Your task to perform on an android device: turn on showing notifications on the lock screen Image 0: 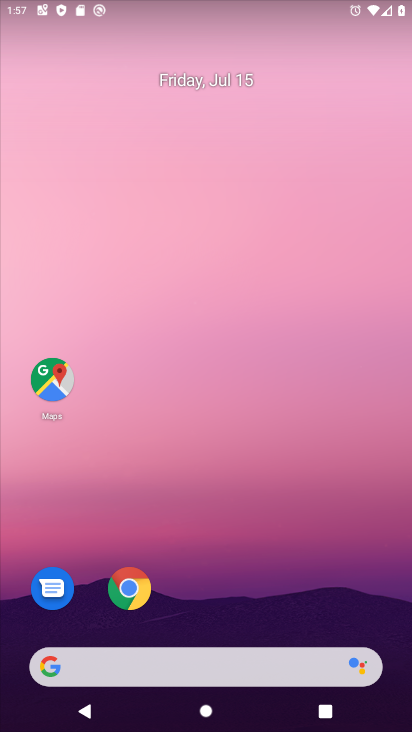
Step 0: drag from (197, 672) to (268, 206)
Your task to perform on an android device: turn on showing notifications on the lock screen Image 1: 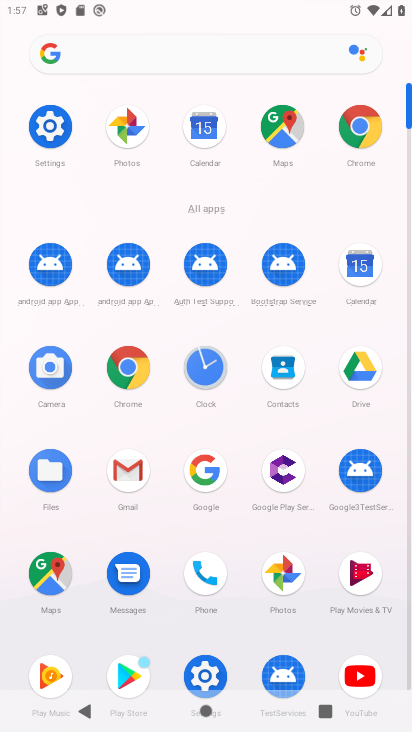
Step 1: click (204, 677)
Your task to perform on an android device: turn on showing notifications on the lock screen Image 2: 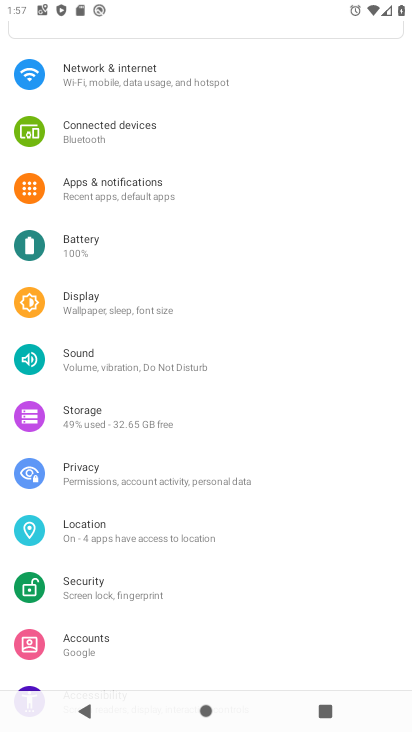
Step 2: click (125, 196)
Your task to perform on an android device: turn on showing notifications on the lock screen Image 3: 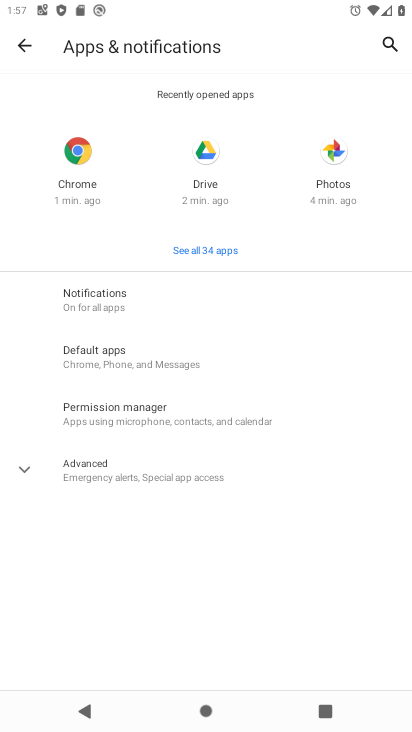
Step 3: click (91, 301)
Your task to perform on an android device: turn on showing notifications on the lock screen Image 4: 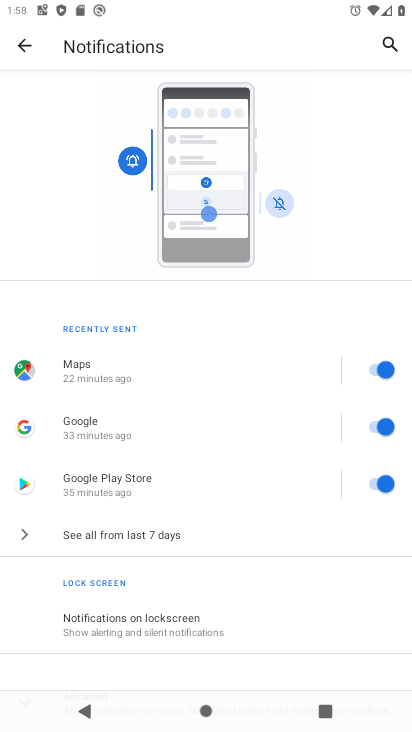
Step 4: click (104, 618)
Your task to perform on an android device: turn on showing notifications on the lock screen Image 5: 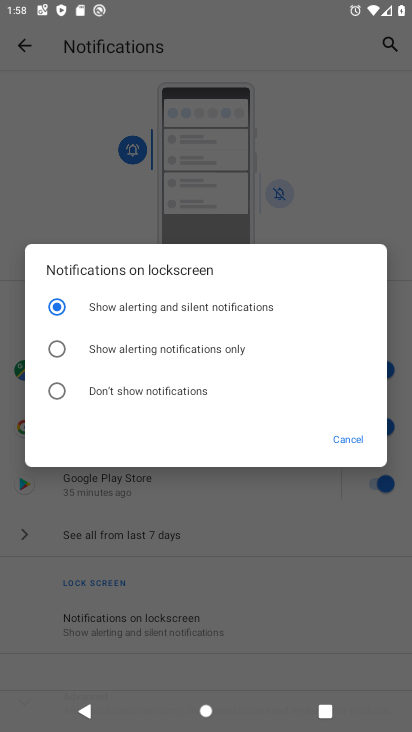
Step 5: click (51, 305)
Your task to perform on an android device: turn on showing notifications on the lock screen Image 6: 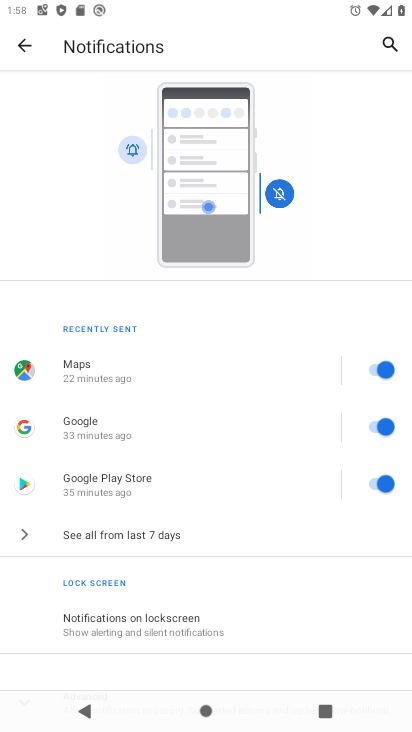
Step 6: task complete